Your task to perform on an android device: Open calendar and show me the third week of next month Image 0: 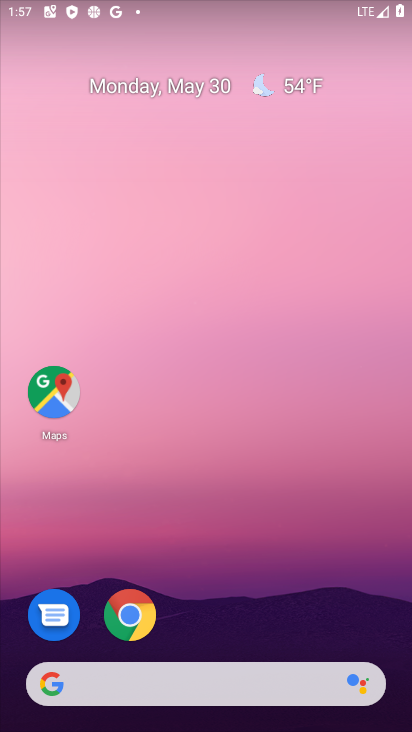
Step 0: drag from (257, 559) to (292, 7)
Your task to perform on an android device: Open calendar and show me the third week of next month Image 1: 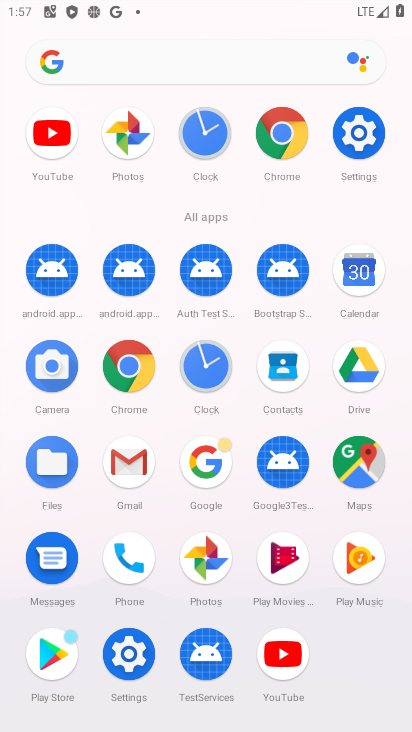
Step 1: click (363, 270)
Your task to perform on an android device: Open calendar and show me the third week of next month Image 2: 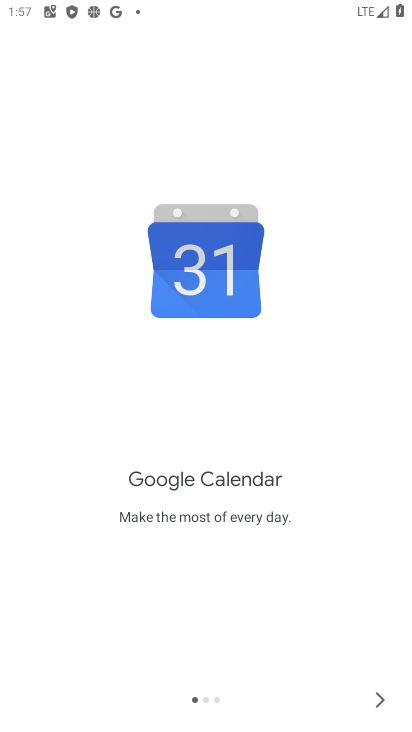
Step 2: click (375, 689)
Your task to perform on an android device: Open calendar and show me the third week of next month Image 3: 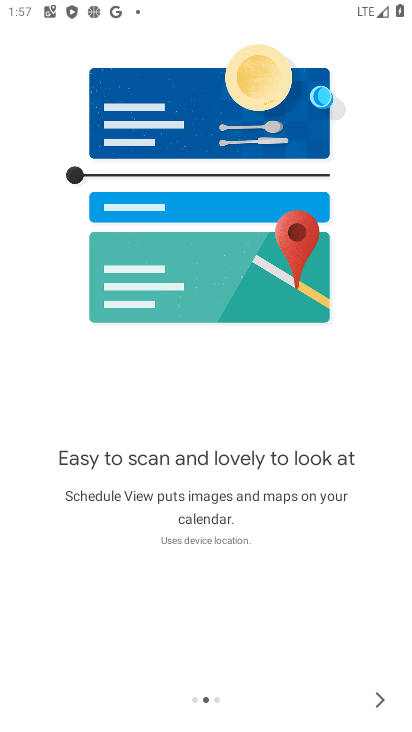
Step 3: click (375, 691)
Your task to perform on an android device: Open calendar and show me the third week of next month Image 4: 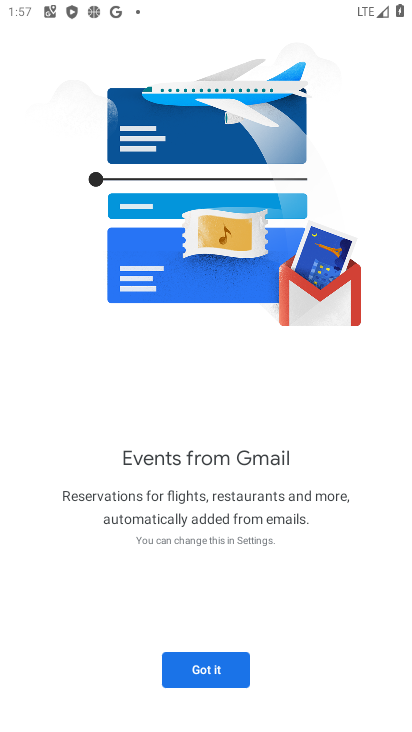
Step 4: click (236, 680)
Your task to perform on an android device: Open calendar and show me the third week of next month Image 5: 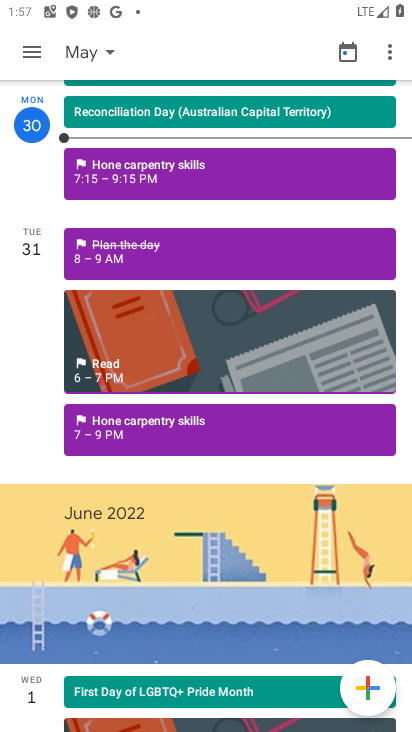
Step 5: click (27, 43)
Your task to perform on an android device: Open calendar and show me the third week of next month Image 6: 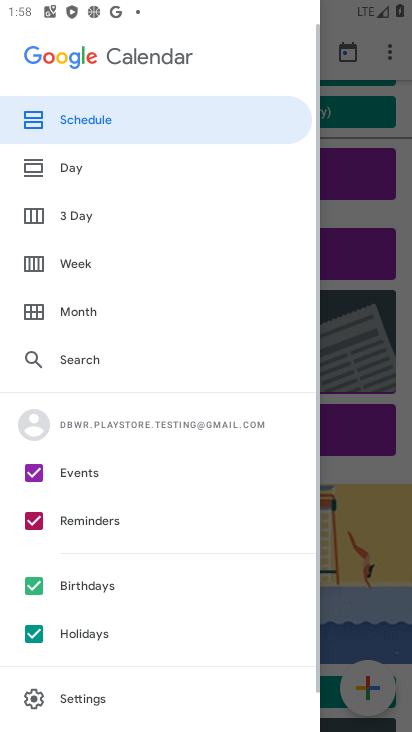
Step 6: click (68, 270)
Your task to perform on an android device: Open calendar and show me the third week of next month Image 7: 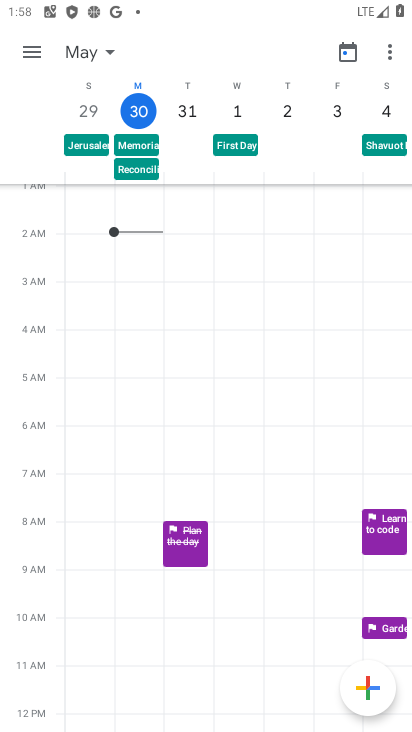
Step 7: click (89, 36)
Your task to perform on an android device: Open calendar and show me the third week of next month Image 8: 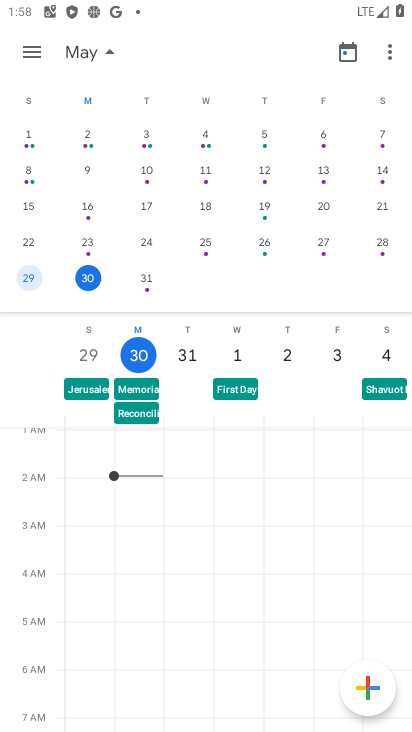
Step 8: drag from (349, 190) to (4, 145)
Your task to perform on an android device: Open calendar and show me the third week of next month Image 9: 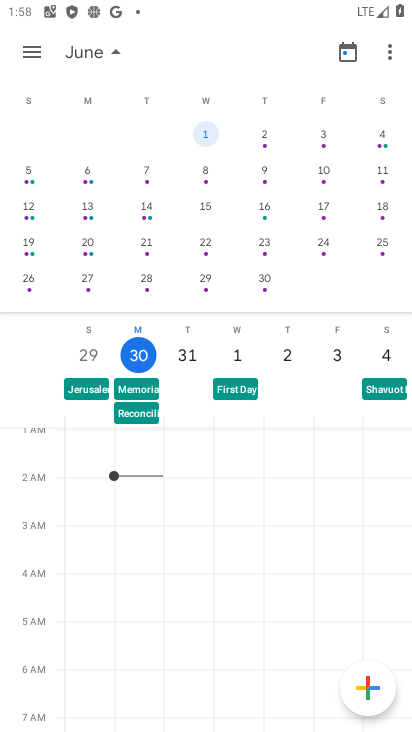
Step 9: click (76, 238)
Your task to perform on an android device: Open calendar and show me the third week of next month Image 10: 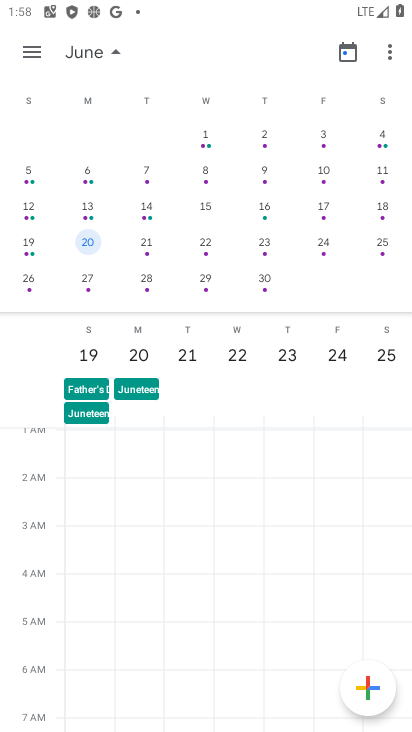
Step 10: task complete